Your task to perform on an android device: Open sound settings Image 0: 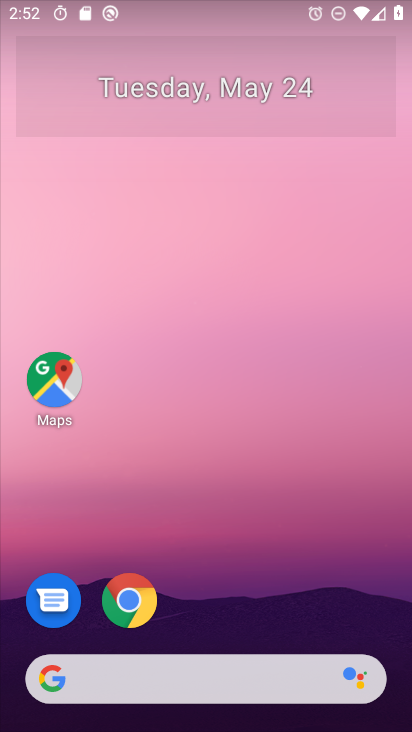
Step 0: drag from (263, 559) to (208, 182)
Your task to perform on an android device: Open sound settings Image 1: 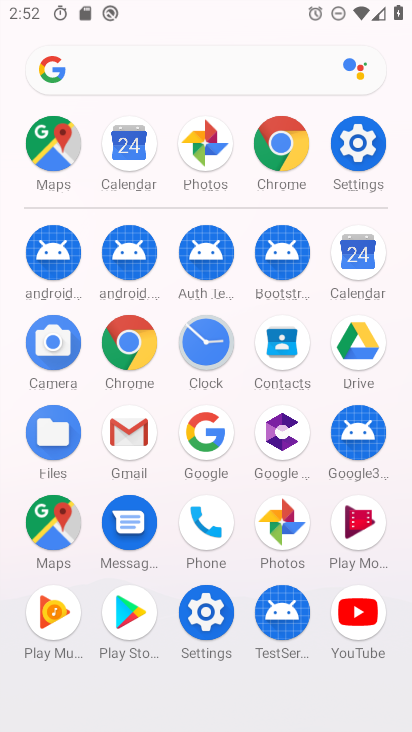
Step 1: click (343, 147)
Your task to perform on an android device: Open sound settings Image 2: 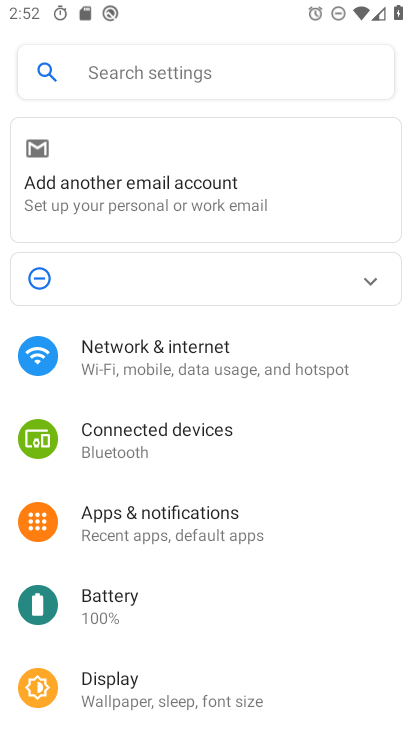
Step 2: drag from (224, 535) to (243, 68)
Your task to perform on an android device: Open sound settings Image 3: 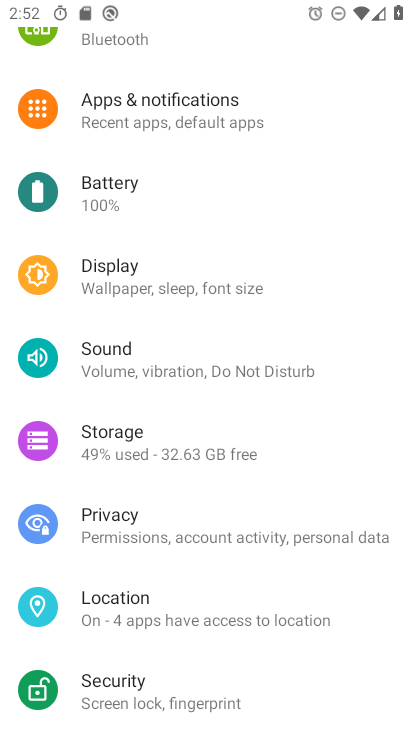
Step 3: click (143, 351)
Your task to perform on an android device: Open sound settings Image 4: 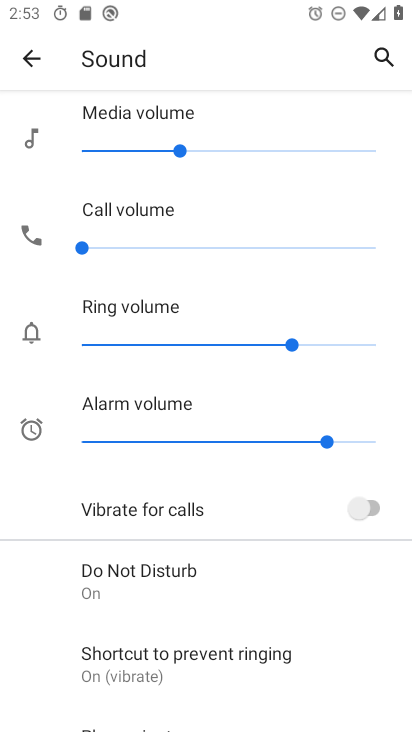
Step 4: task complete